Your task to perform on an android device: Open Google Chrome and click the shortcut for Amazon.com Image 0: 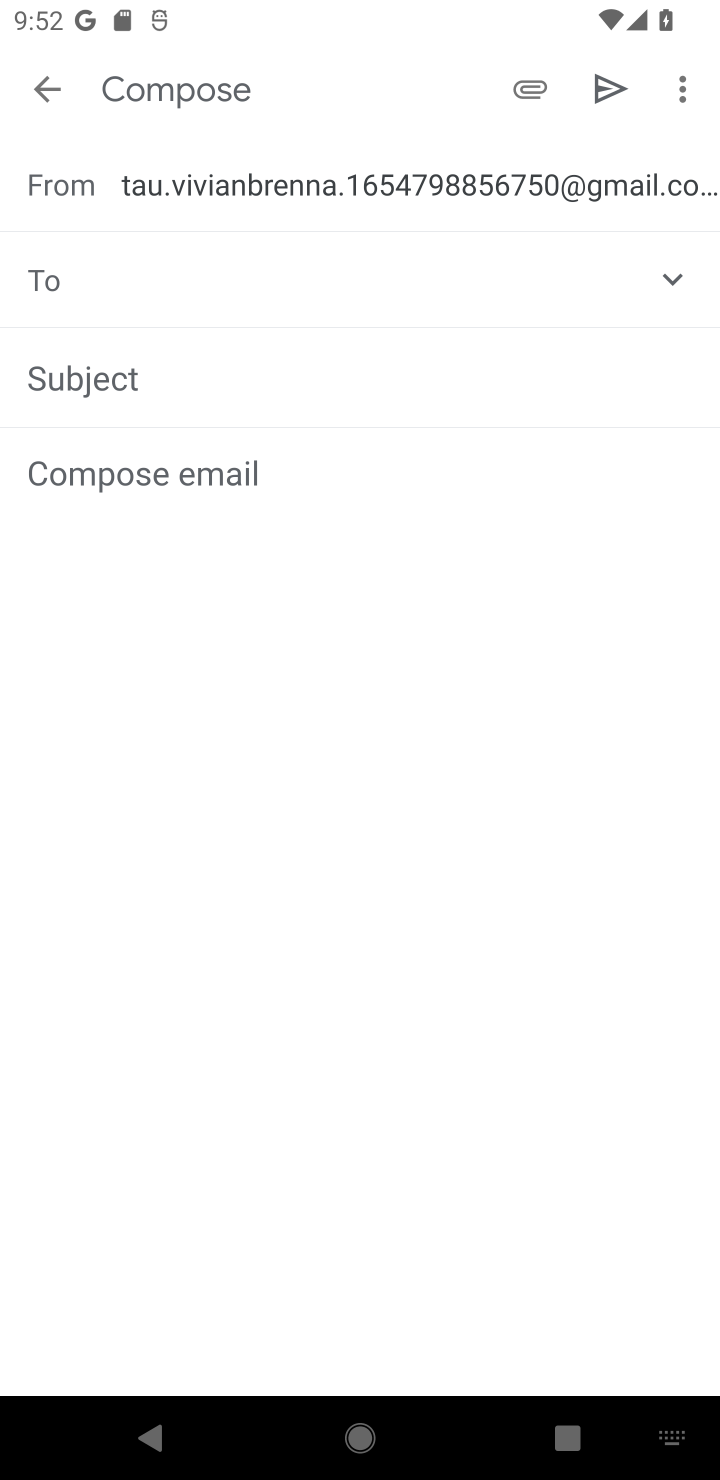
Step 0: press home button
Your task to perform on an android device: Open Google Chrome and click the shortcut for Amazon.com Image 1: 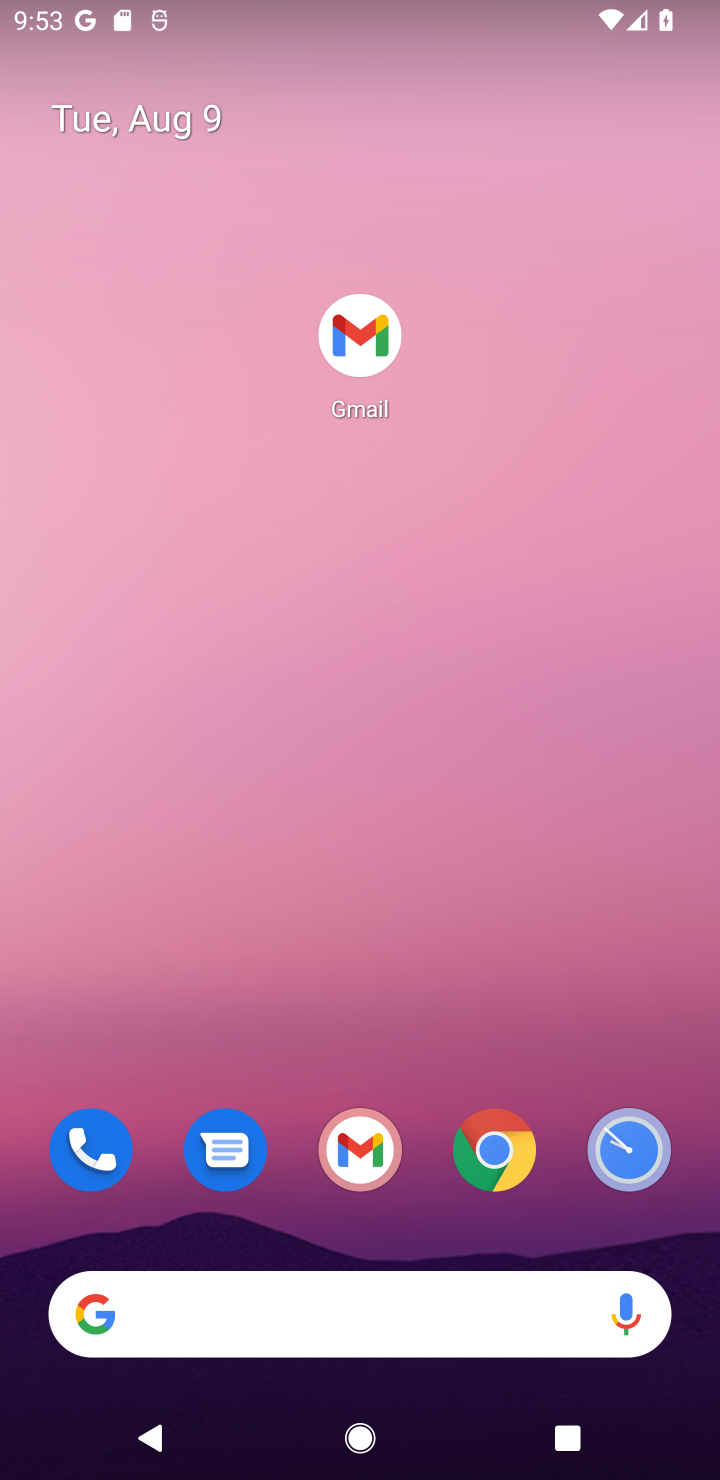
Step 1: click (482, 1161)
Your task to perform on an android device: Open Google Chrome and click the shortcut for Amazon.com Image 2: 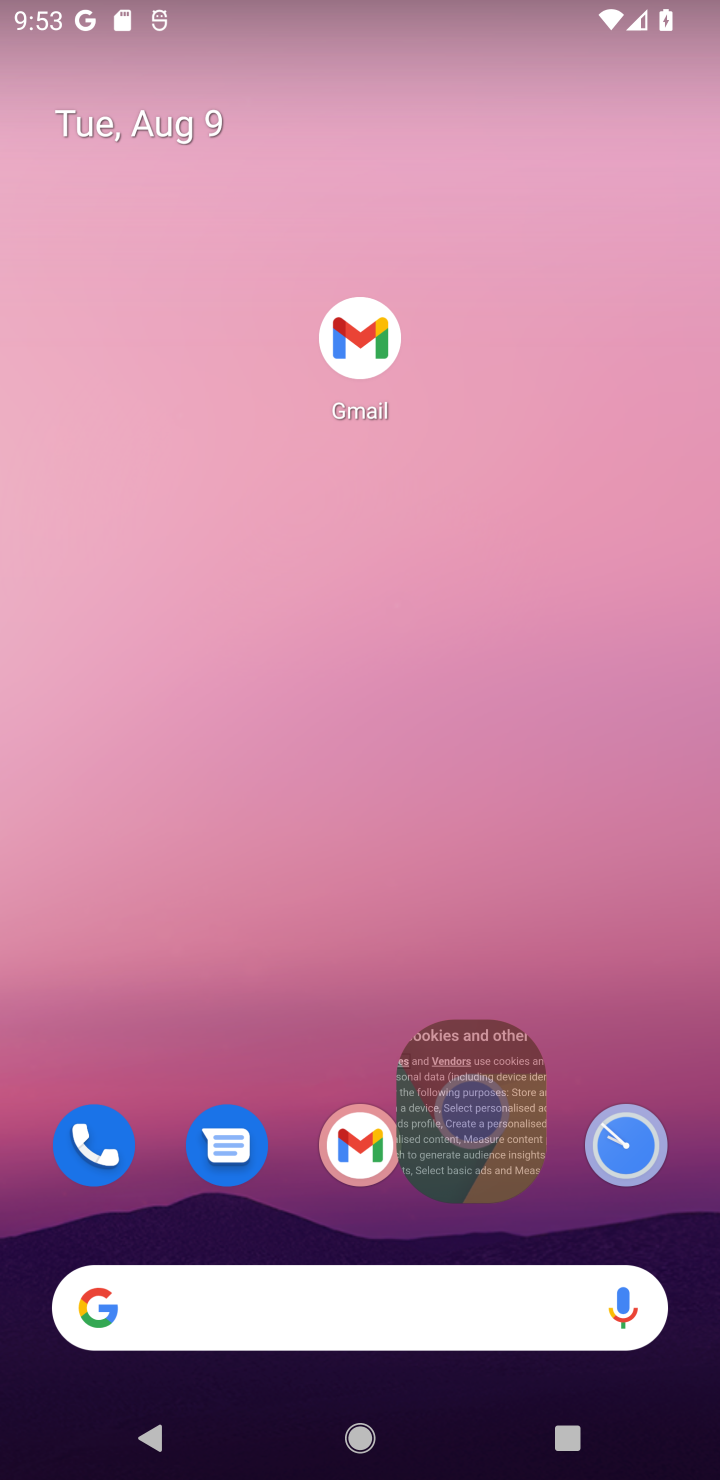
Step 2: click (482, 1161)
Your task to perform on an android device: Open Google Chrome and click the shortcut for Amazon.com Image 3: 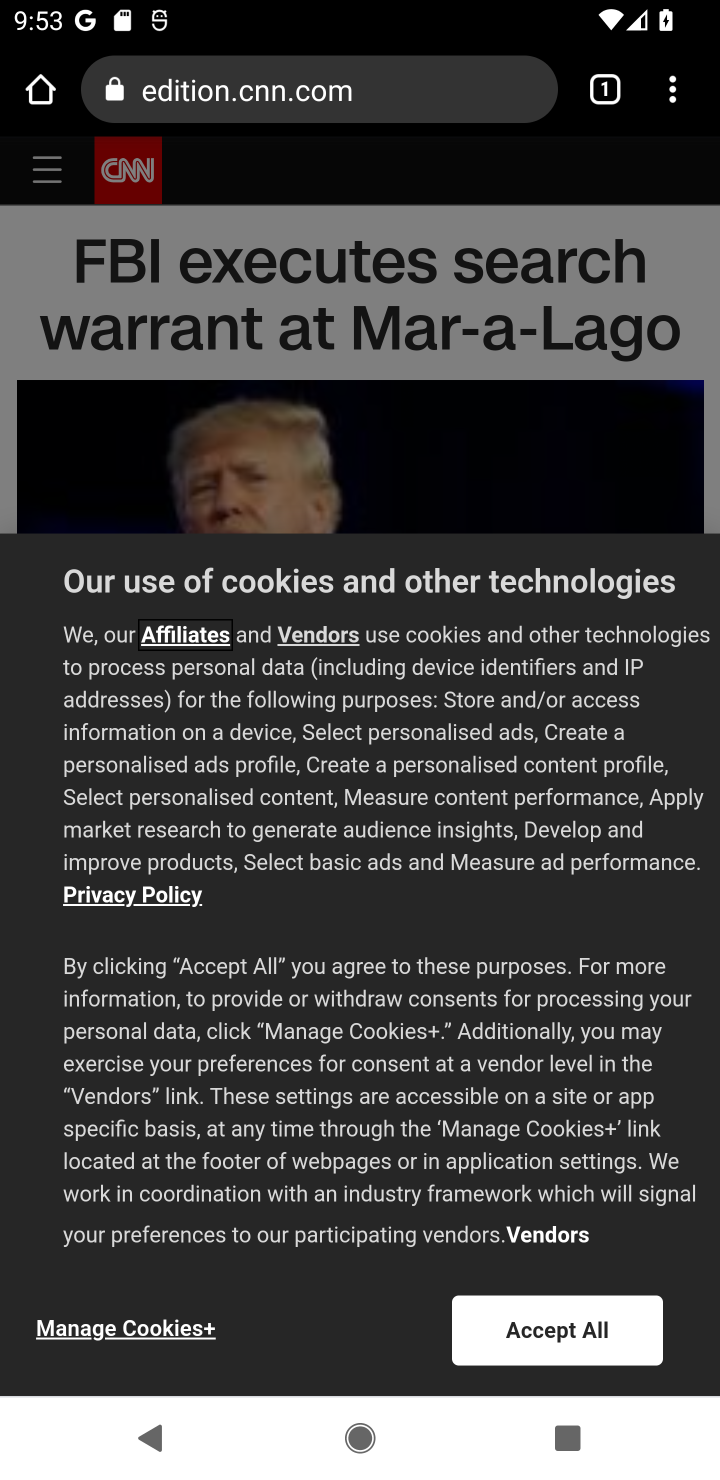
Step 3: drag from (602, 84) to (576, 168)
Your task to perform on an android device: Open Google Chrome and click the shortcut for Amazon.com Image 4: 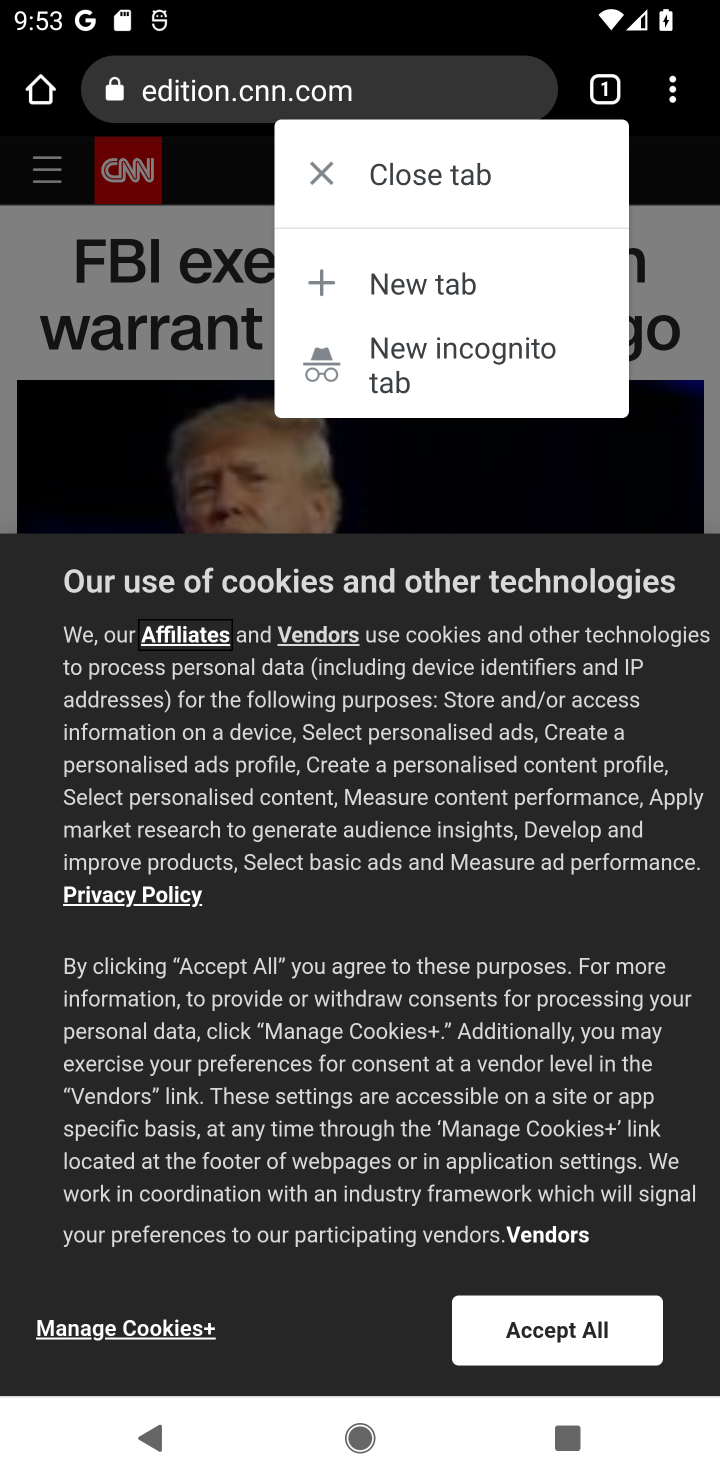
Step 4: click (345, 479)
Your task to perform on an android device: Open Google Chrome and click the shortcut for Amazon.com Image 5: 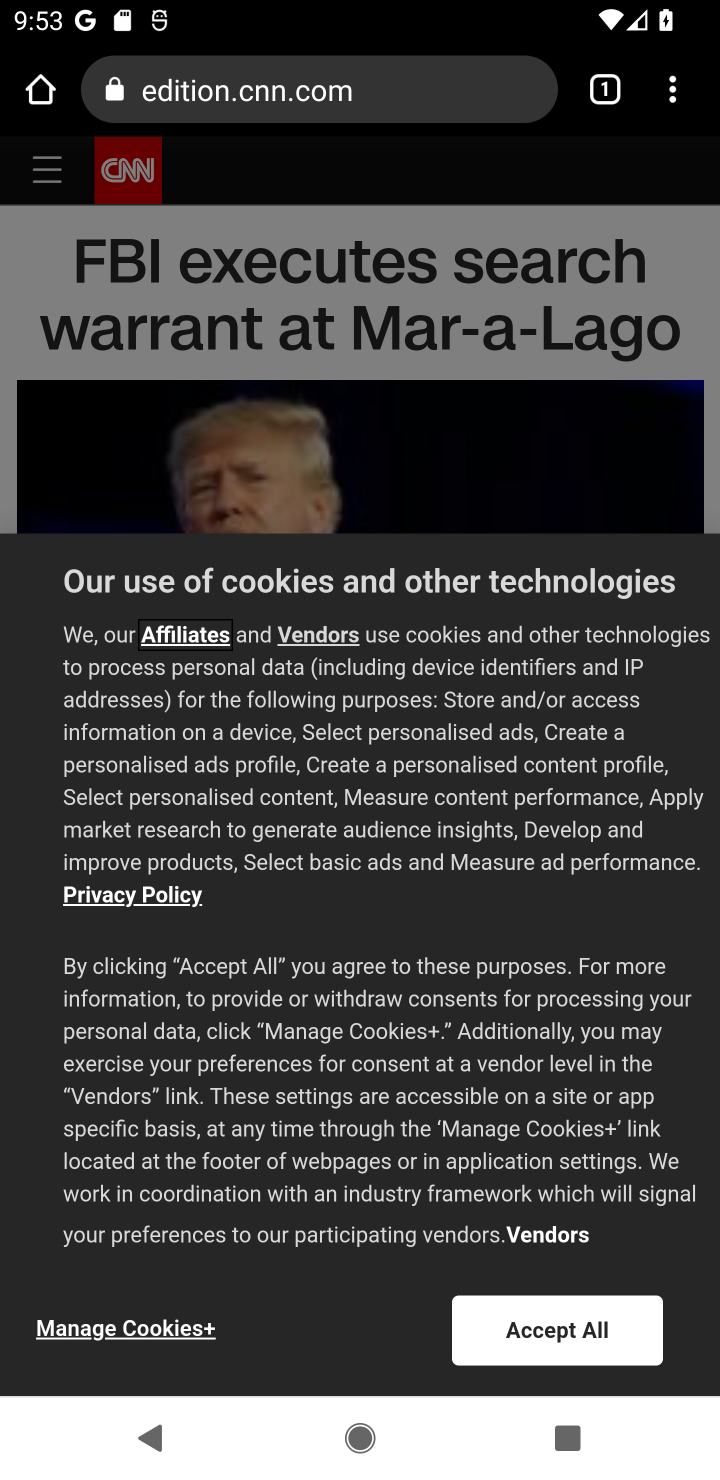
Step 5: drag from (587, 99) to (616, 812)
Your task to perform on an android device: Open Google Chrome and click the shortcut for Amazon.com Image 6: 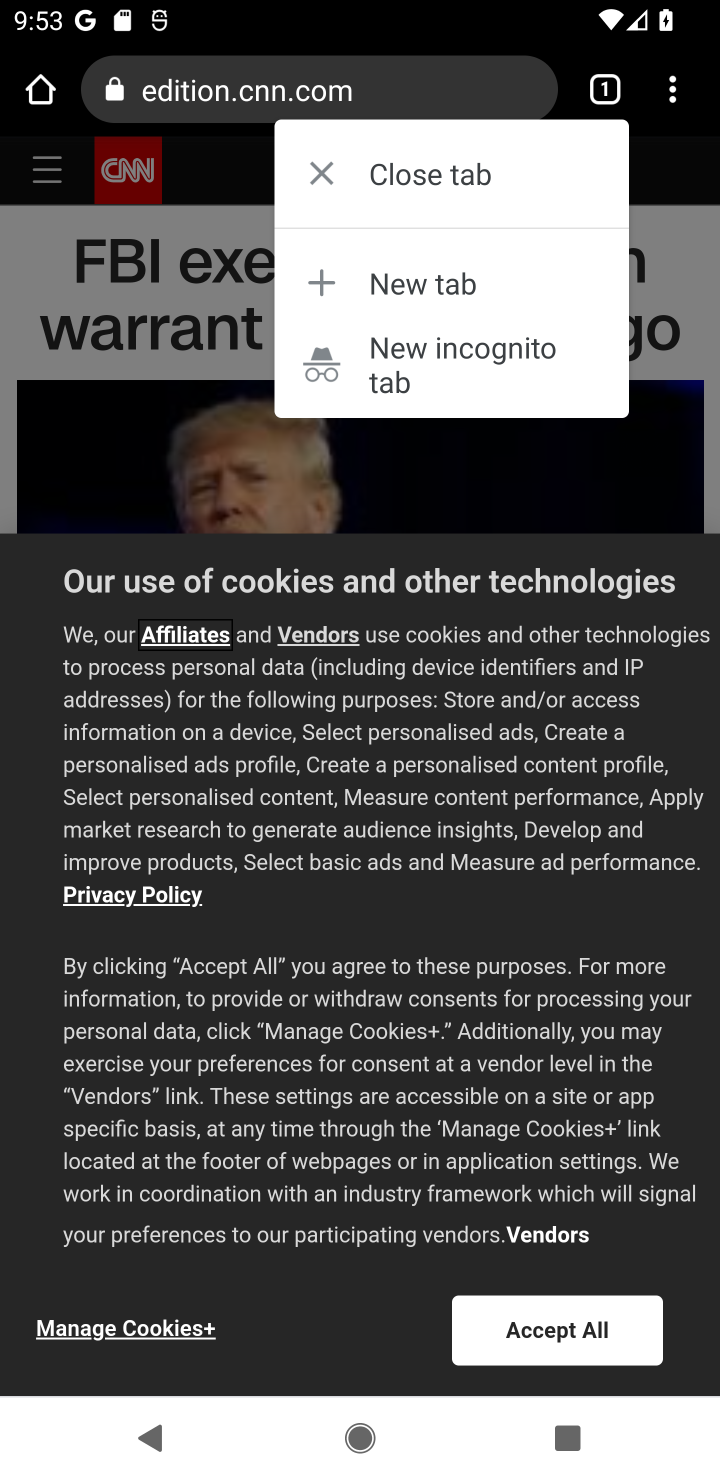
Step 6: click (616, 812)
Your task to perform on an android device: Open Google Chrome and click the shortcut for Amazon.com Image 7: 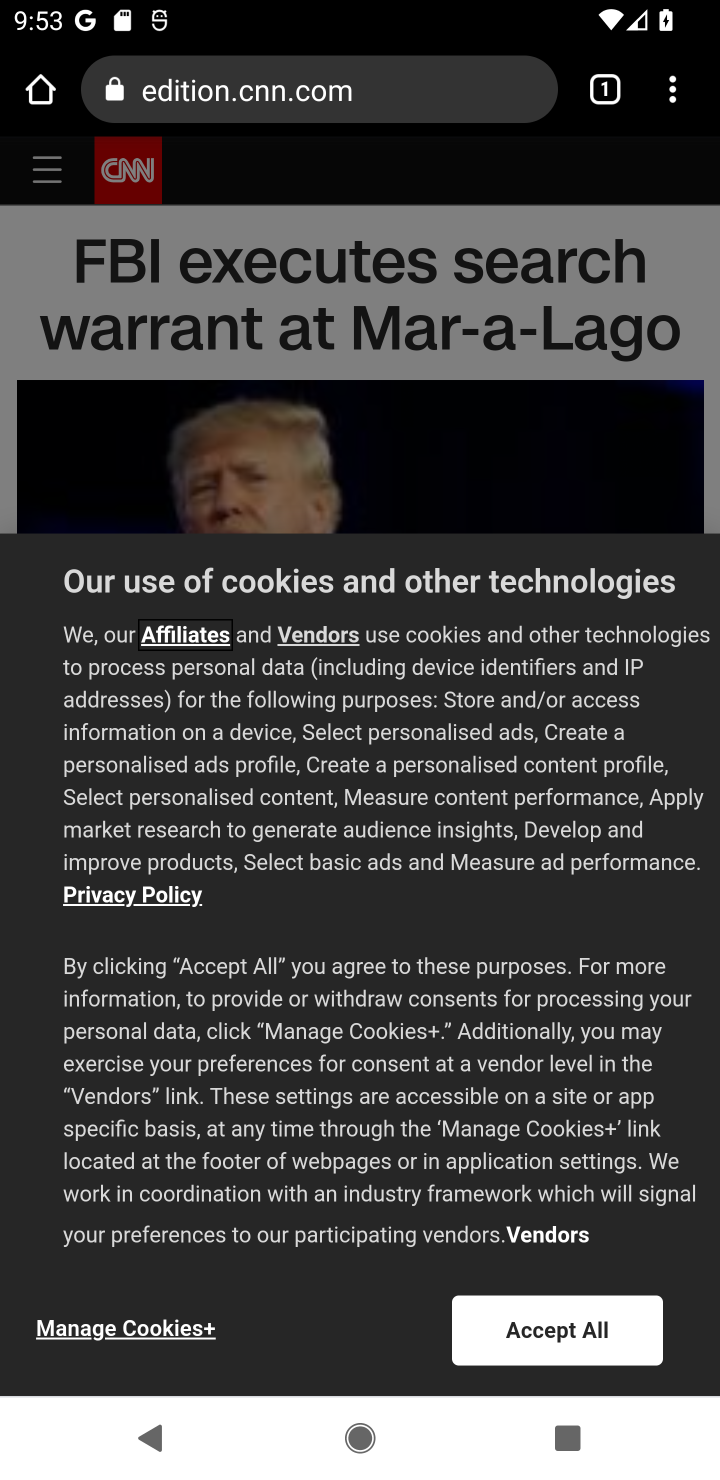
Step 7: drag from (604, 94) to (553, 497)
Your task to perform on an android device: Open Google Chrome and click the shortcut for Amazon.com Image 8: 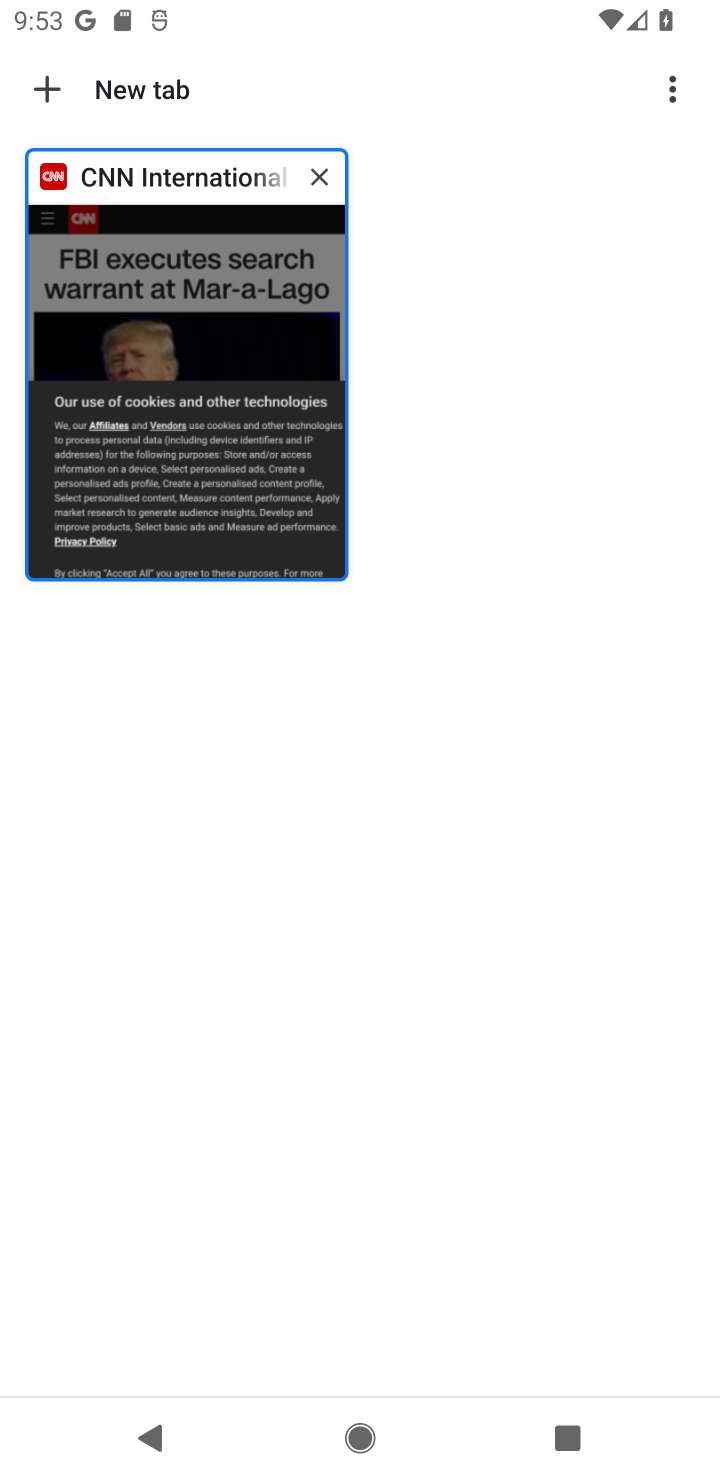
Step 8: click (33, 84)
Your task to perform on an android device: Open Google Chrome and click the shortcut for Amazon.com Image 9: 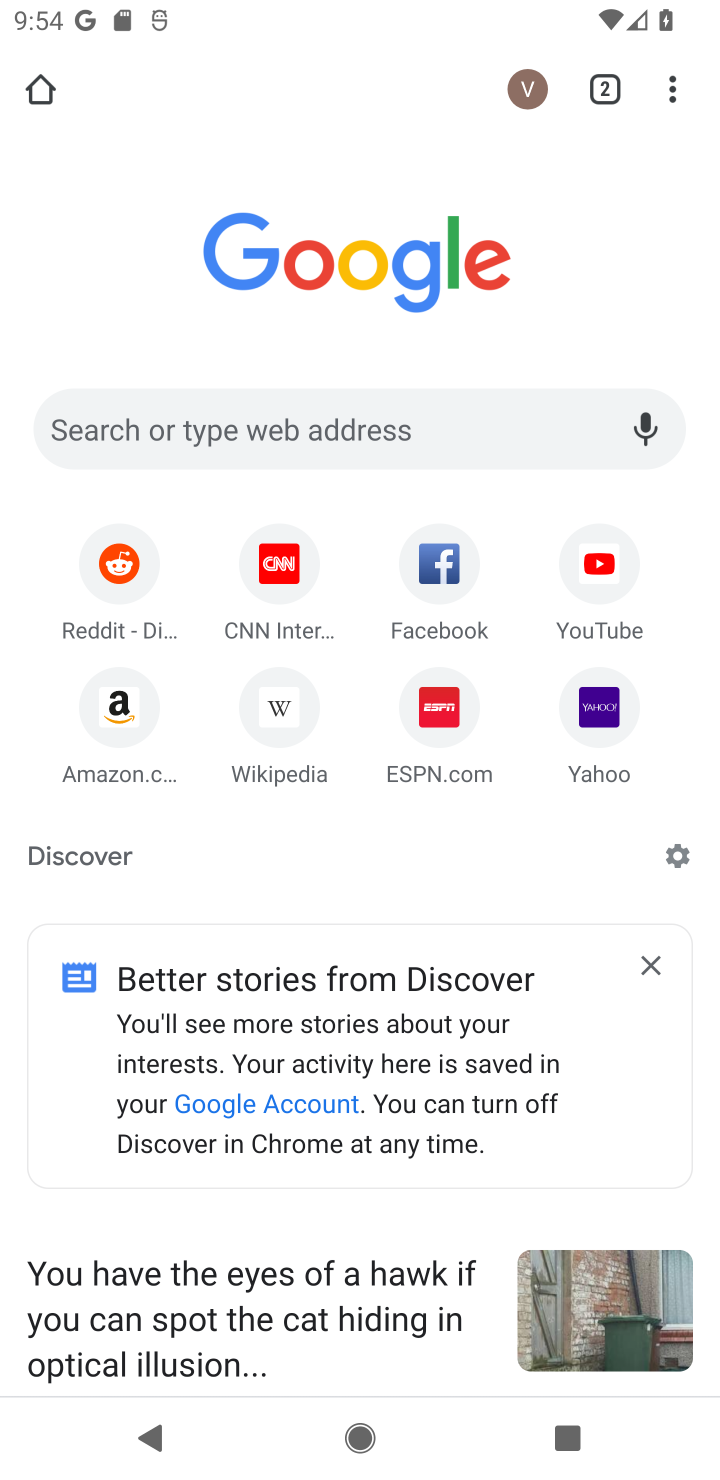
Step 9: click (109, 757)
Your task to perform on an android device: Open Google Chrome and click the shortcut for Amazon.com Image 10: 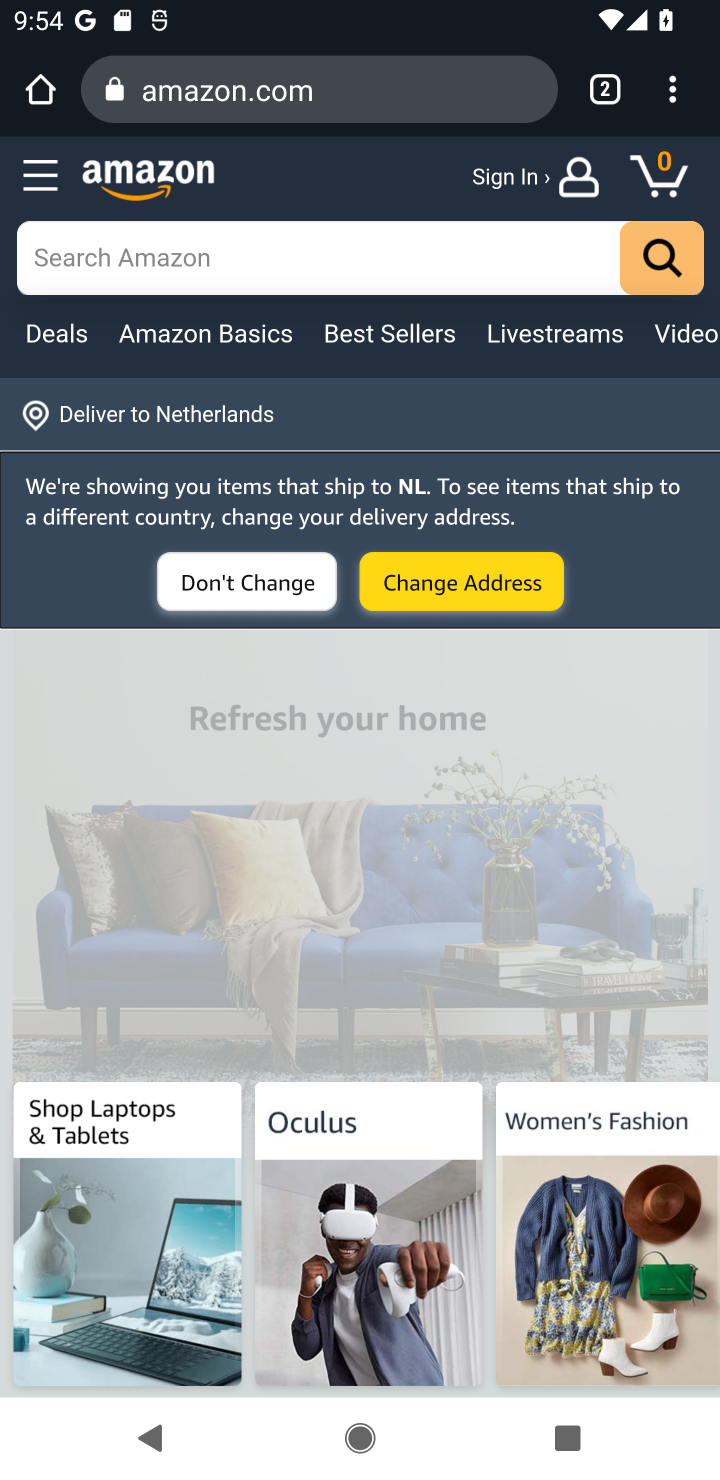
Step 10: task complete